Your task to perform on an android device: turn on improve location accuracy Image 0: 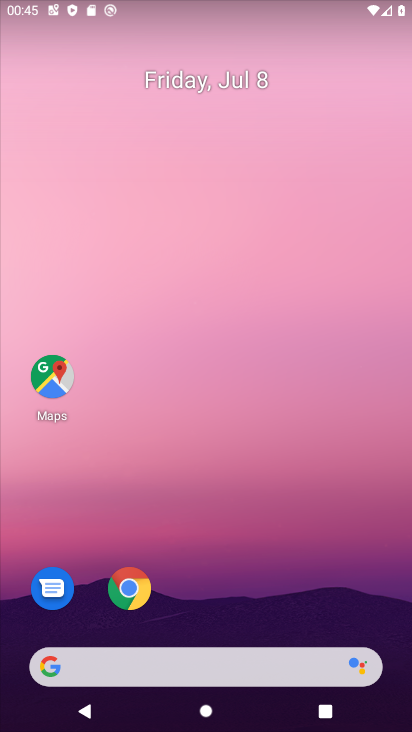
Step 0: drag from (235, 88) to (213, 155)
Your task to perform on an android device: turn on improve location accuracy Image 1: 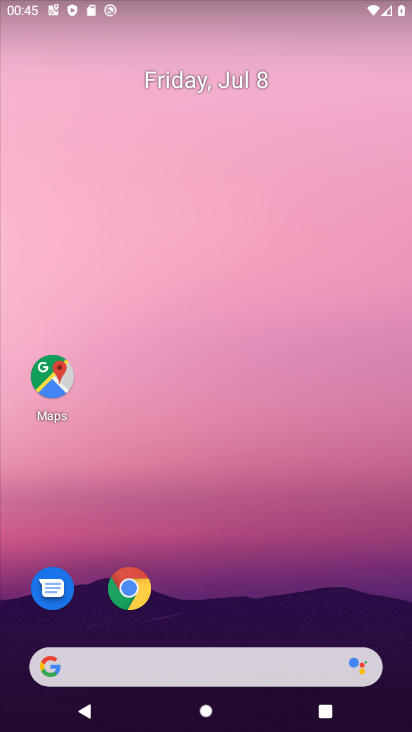
Step 1: drag from (204, 576) to (265, 190)
Your task to perform on an android device: turn on improve location accuracy Image 2: 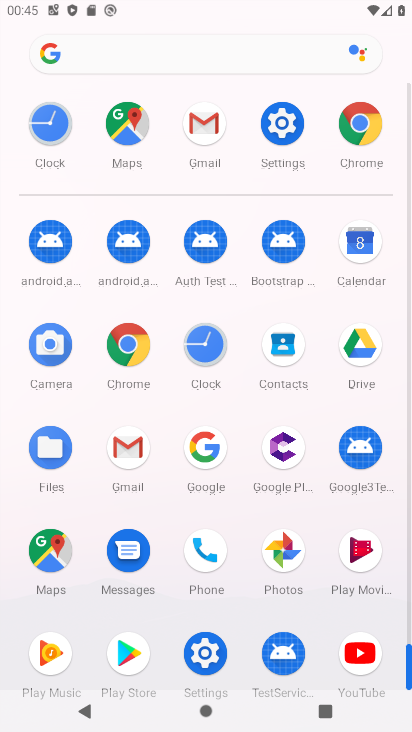
Step 2: click (278, 125)
Your task to perform on an android device: turn on improve location accuracy Image 3: 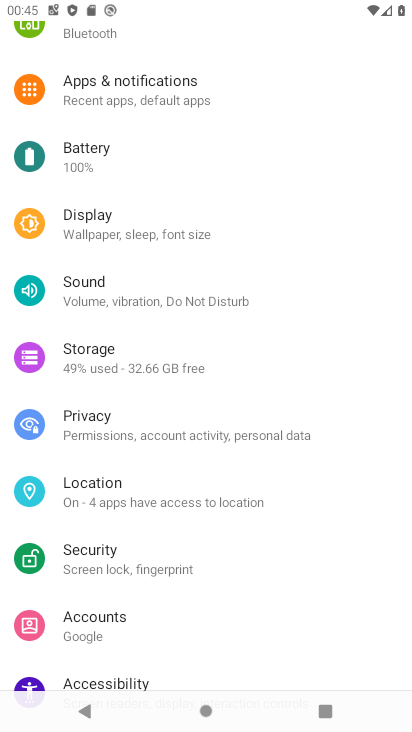
Step 3: click (98, 442)
Your task to perform on an android device: turn on improve location accuracy Image 4: 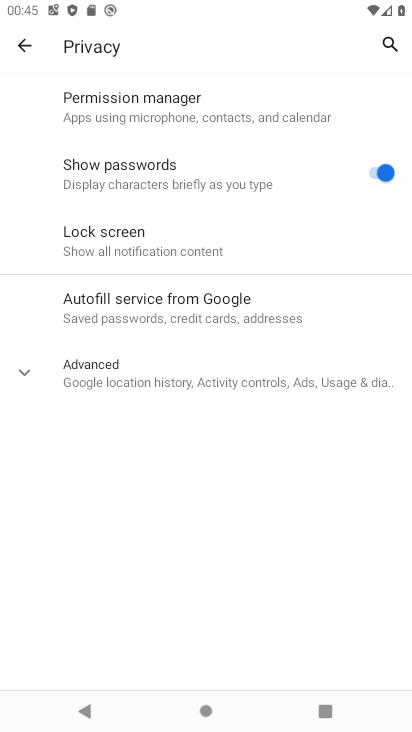
Step 4: click (32, 43)
Your task to perform on an android device: turn on improve location accuracy Image 5: 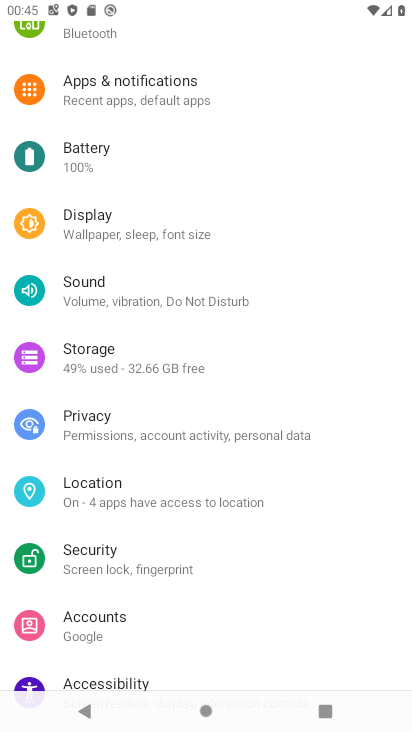
Step 5: click (100, 502)
Your task to perform on an android device: turn on improve location accuracy Image 6: 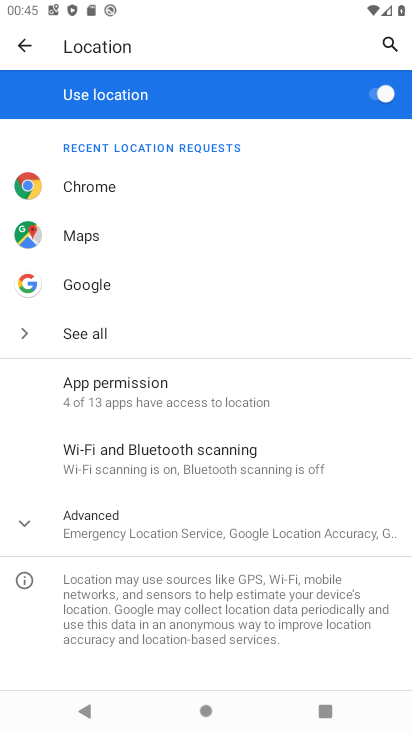
Step 6: click (103, 515)
Your task to perform on an android device: turn on improve location accuracy Image 7: 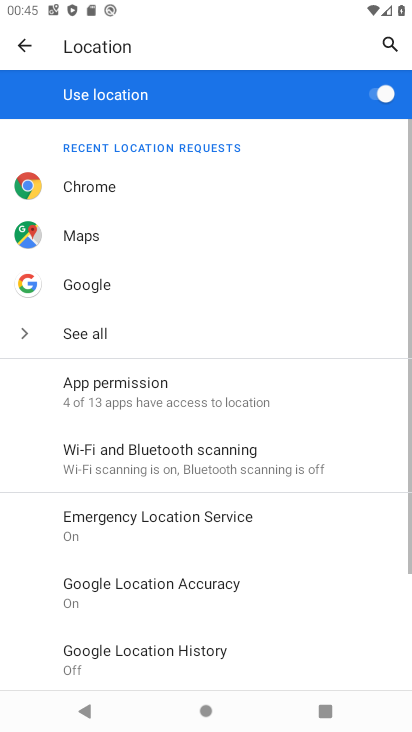
Step 7: drag from (105, 509) to (156, 290)
Your task to perform on an android device: turn on improve location accuracy Image 8: 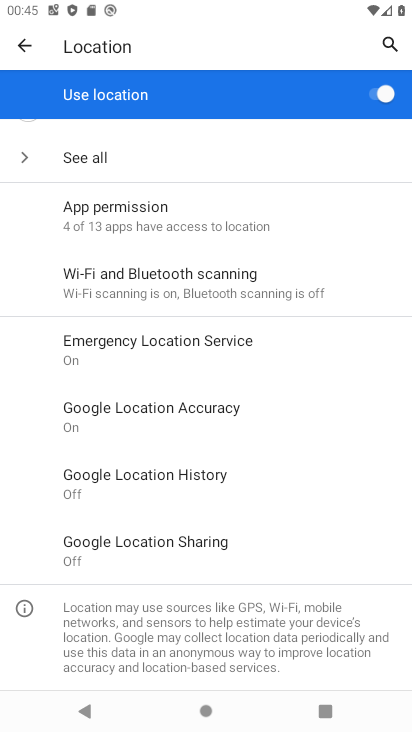
Step 8: click (148, 426)
Your task to perform on an android device: turn on improve location accuracy Image 9: 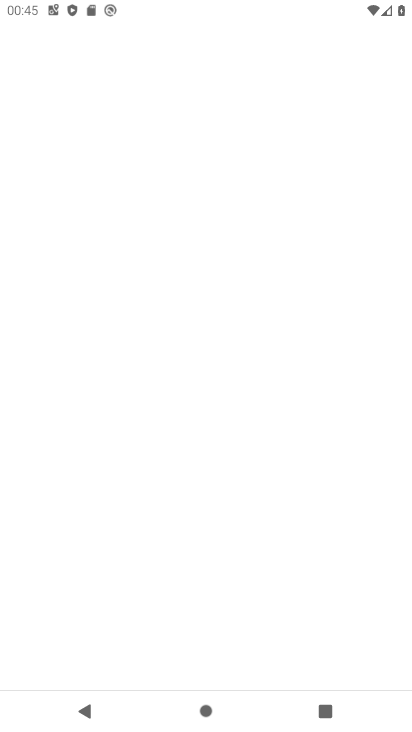
Step 9: task complete